Your task to perform on an android device: check google app version Image 0: 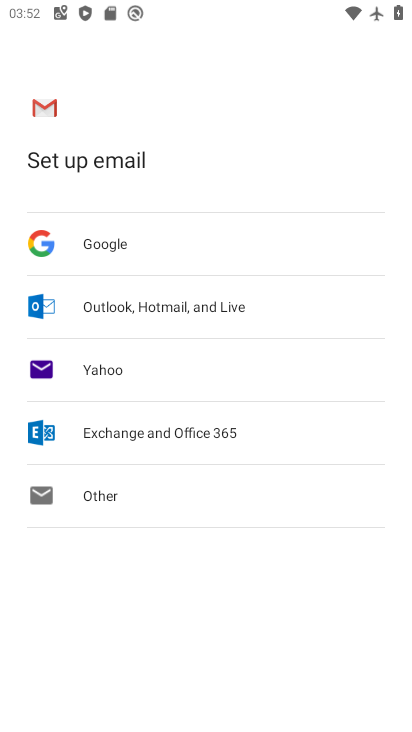
Step 0: press home button
Your task to perform on an android device: check google app version Image 1: 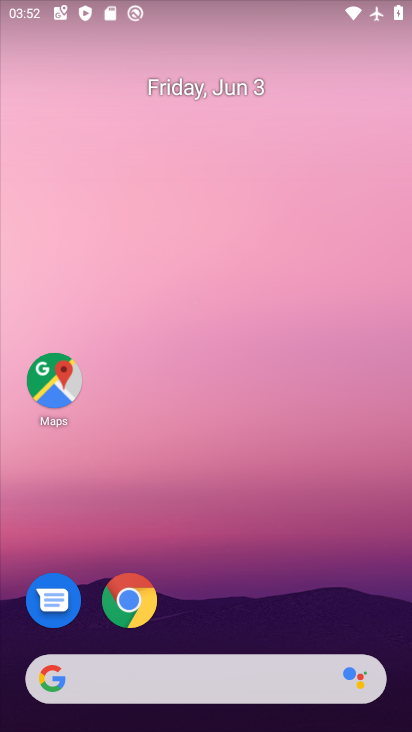
Step 1: click (197, 671)
Your task to perform on an android device: check google app version Image 2: 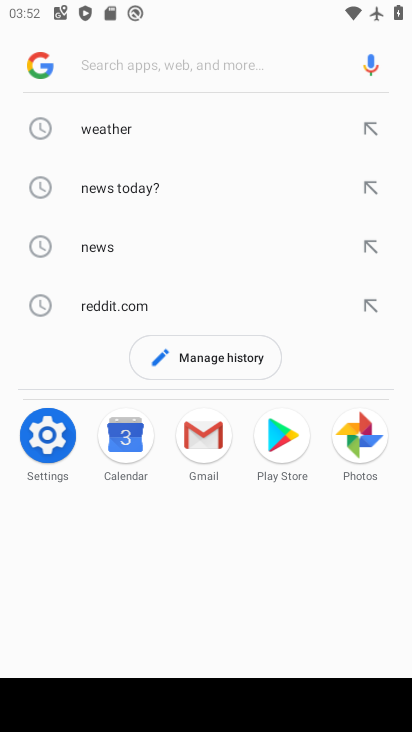
Step 2: click (34, 65)
Your task to perform on an android device: check google app version Image 3: 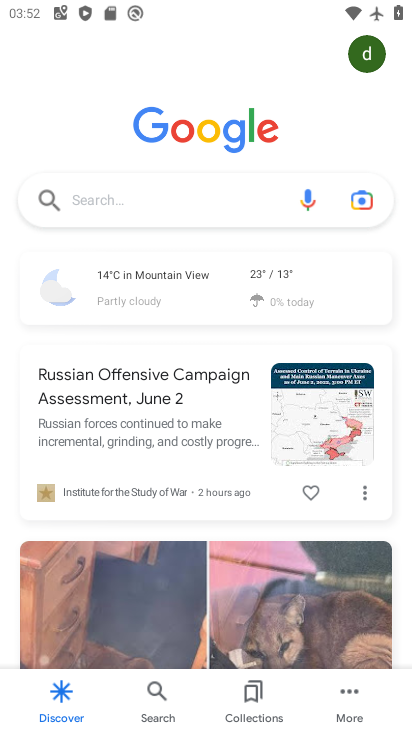
Step 3: click (352, 700)
Your task to perform on an android device: check google app version Image 4: 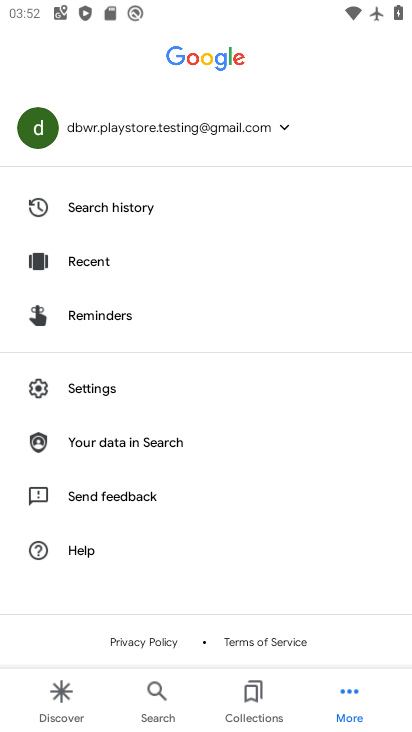
Step 4: click (97, 388)
Your task to perform on an android device: check google app version Image 5: 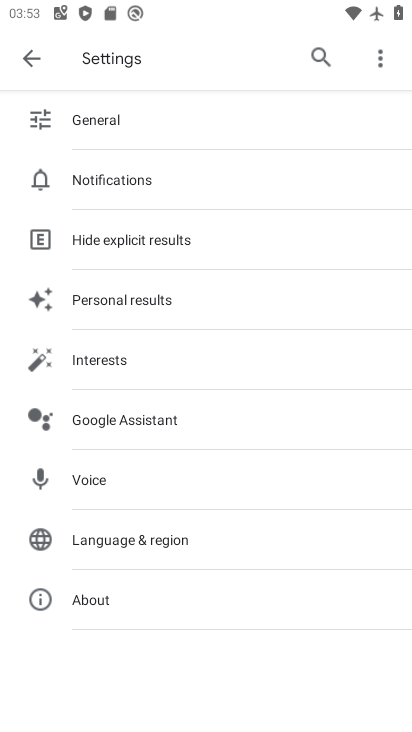
Step 5: click (106, 605)
Your task to perform on an android device: check google app version Image 6: 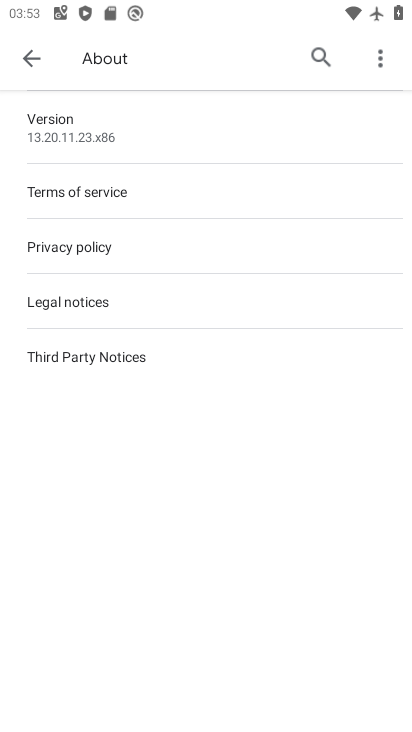
Step 6: task complete